Your task to perform on an android device: change notifications settings Image 0: 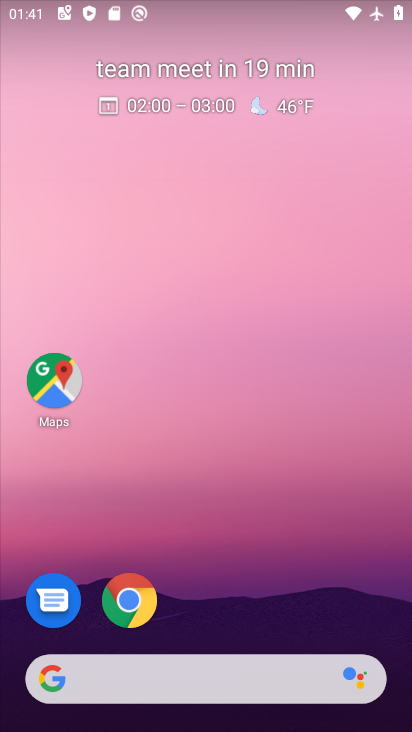
Step 0: drag from (184, 475) to (141, 61)
Your task to perform on an android device: change notifications settings Image 1: 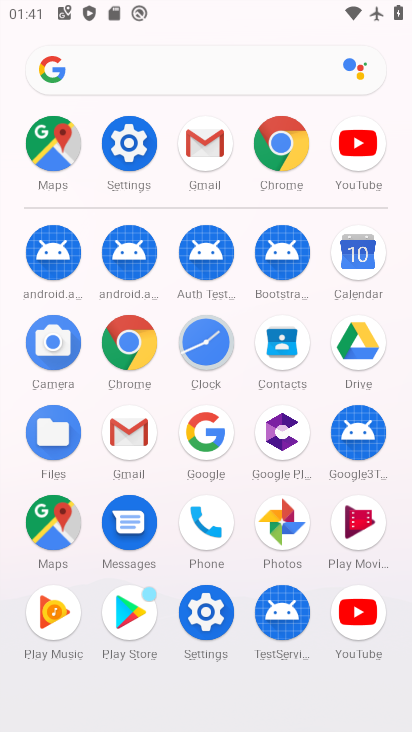
Step 1: click (127, 157)
Your task to perform on an android device: change notifications settings Image 2: 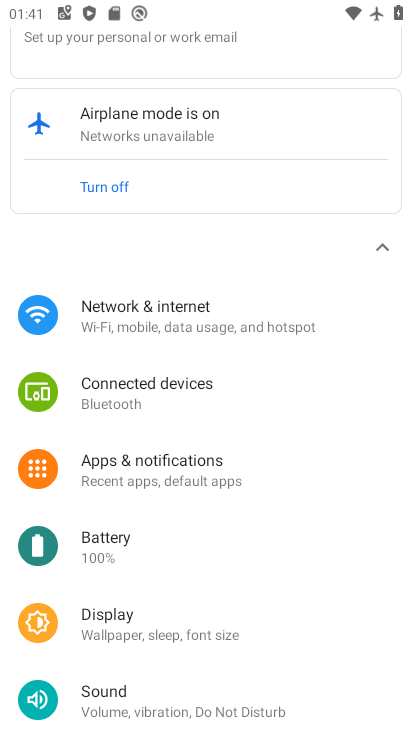
Step 2: click (191, 467)
Your task to perform on an android device: change notifications settings Image 3: 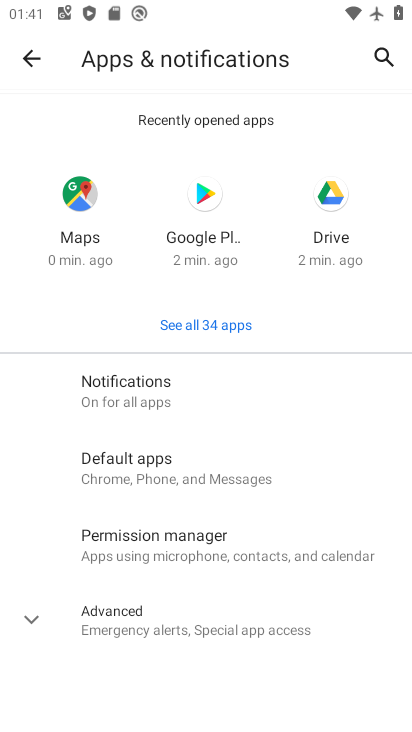
Step 3: click (135, 394)
Your task to perform on an android device: change notifications settings Image 4: 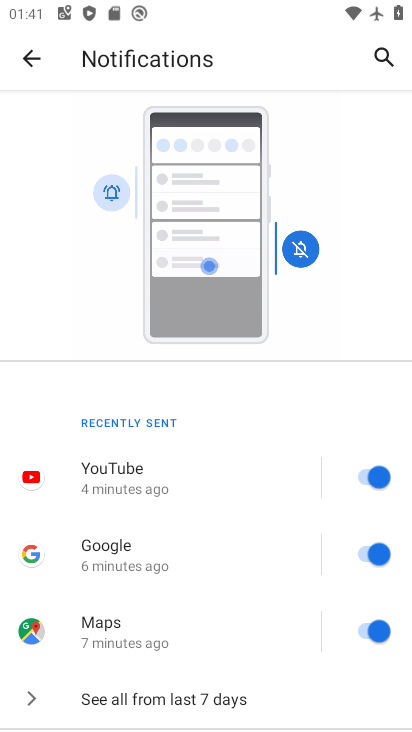
Step 4: drag from (204, 605) to (154, 243)
Your task to perform on an android device: change notifications settings Image 5: 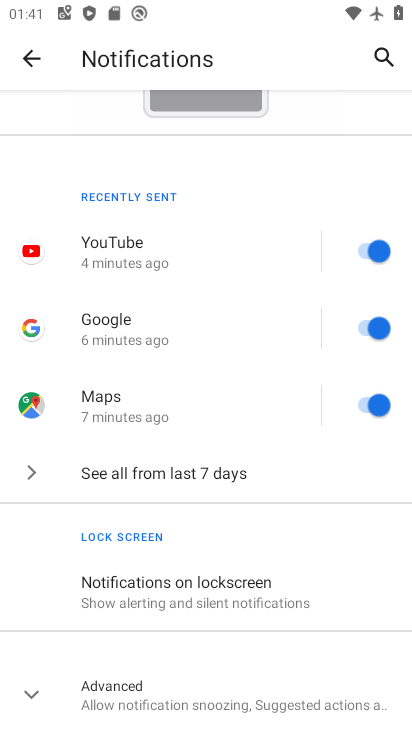
Step 5: click (146, 462)
Your task to perform on an android device: change notifications settings Image 6: 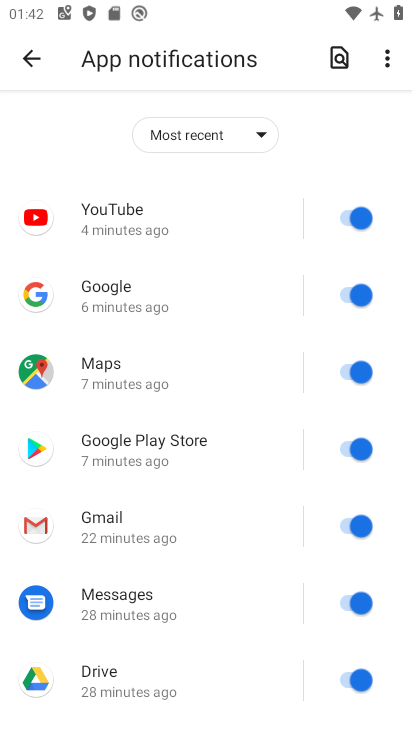
Step 6: click (178, 124)
Your task to perform on an android device: change notifications settings Image 7: 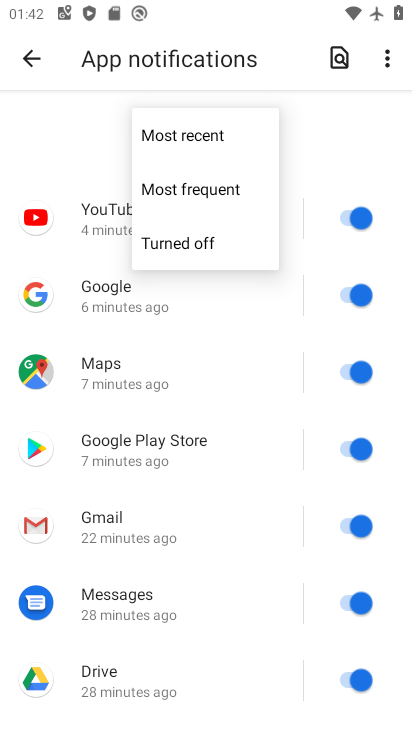
Step 7: click (179, 238)
Your task to perform on an android device: change notifications settings Image 8: 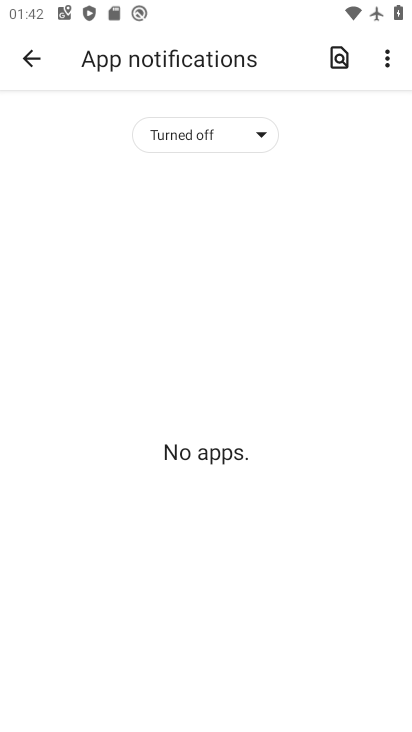
Step 8: task complete